Your task to perform on an android device: Open the map Image 0: 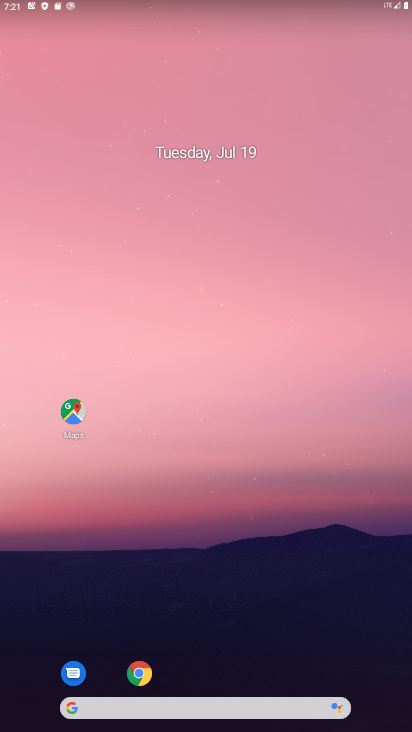
Step 0: drag from (324, 643) to (240, 31)
Your task to perform on an android device: Open the map Image 1: 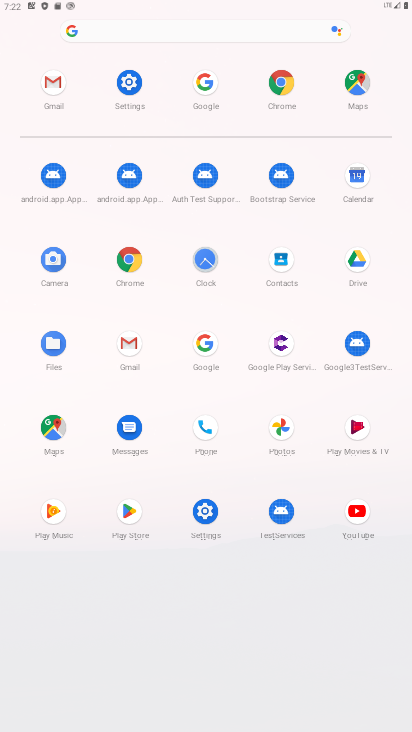
Step 1: click (56, 434)
Your task to perform on an android device: Open the map Image 2: 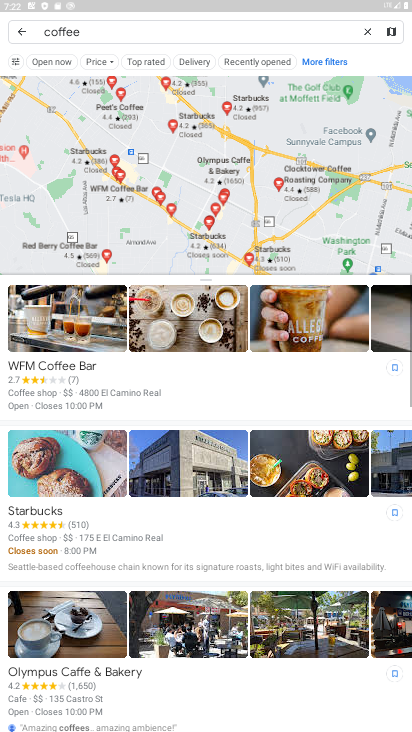
Step 2: click (366, 31)
Your task to perform on an android device: Open the map Image 3: 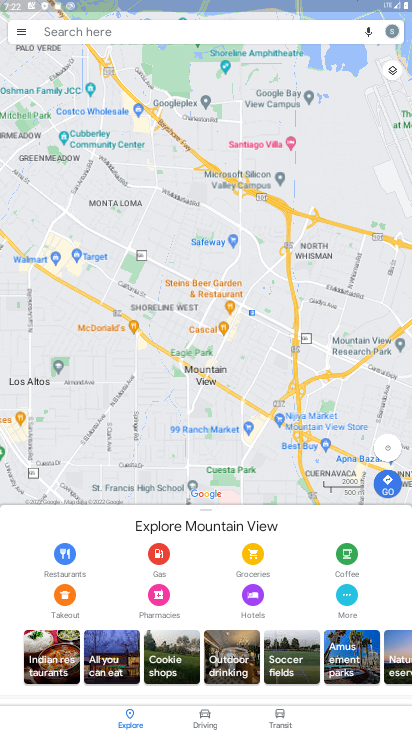
Step 3: task complete